Your task to perform on an android device: check android version Image 0: 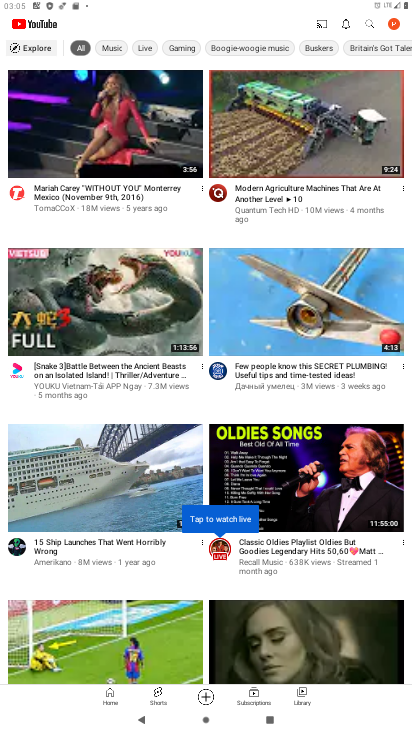
Step 0: press home button
Your task to perform on an android device: check android version Image 1: 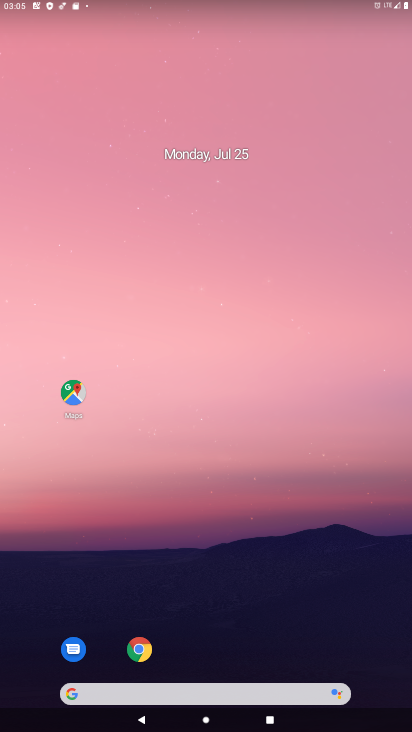
Step 1: drag from (384, 667) to (329, 124)
Your task to perform on an android device: check android version Image 2: 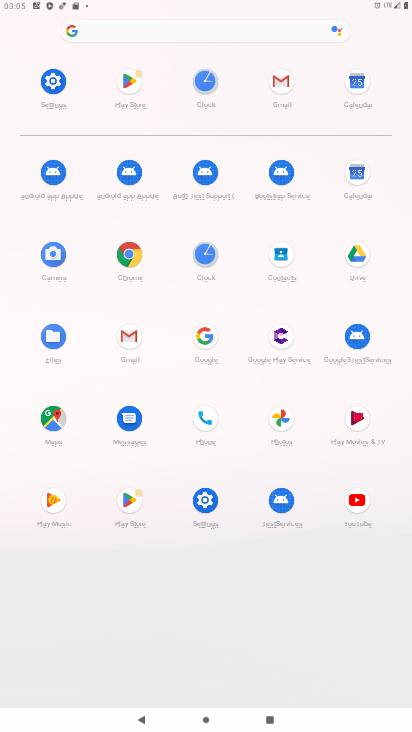
Step 2: click (203, 500)
Your task to perform on an android device: check android version Image 3: 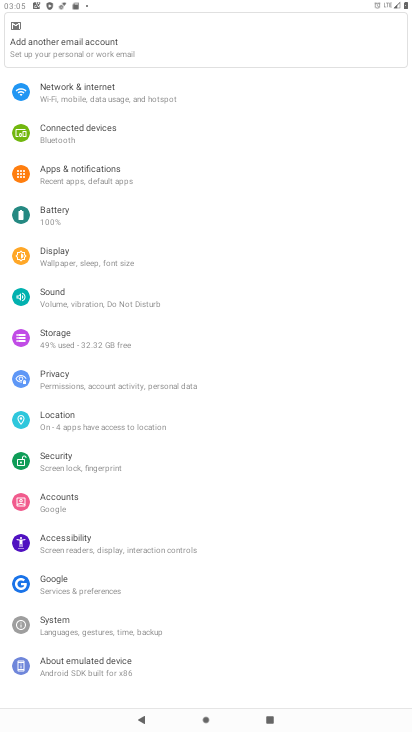
Step 3: drag from (151, 661) to (232, 291)
Your task to perform on an android device: check android version Image 4: 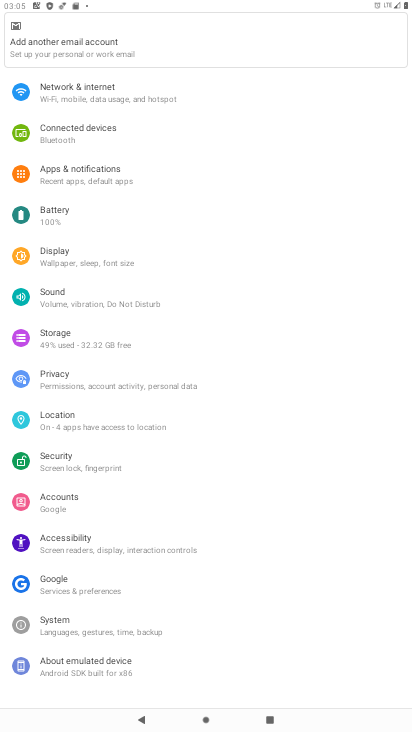
Step 4: click (77, 670)
Your task to perform on an android device: check android version Image 5: 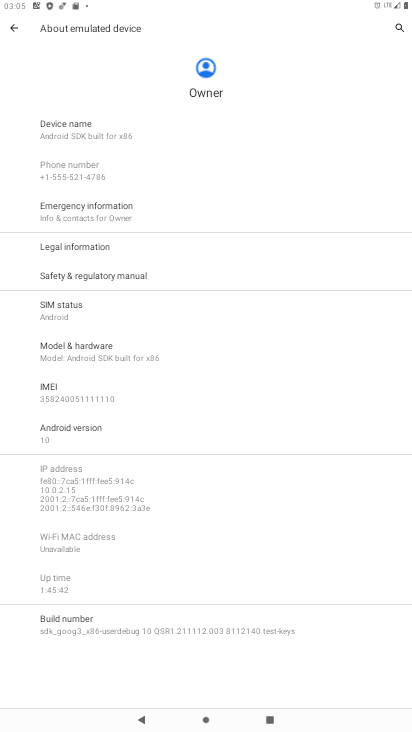
Step 5: drag from (227, 620) to (242, 300)
Your task to perform on an android device: check android version Image 6: 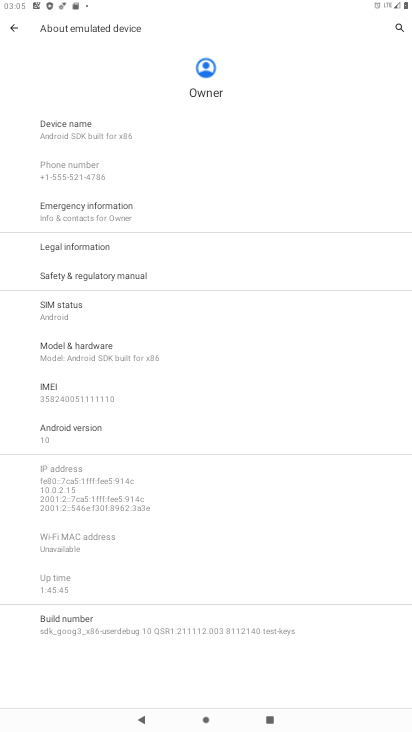
Step 6: click (61, 423)
Your task to perform on an android device: check android version Image 7: 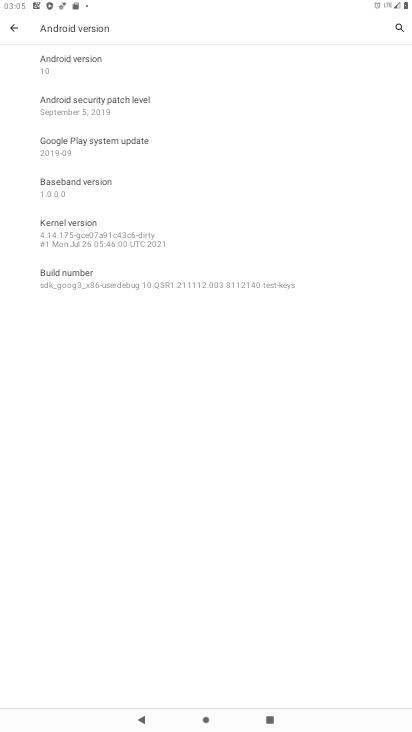
Step 7: task complete